Your task to perform on an android device: star an email in the gmail app Image 0: 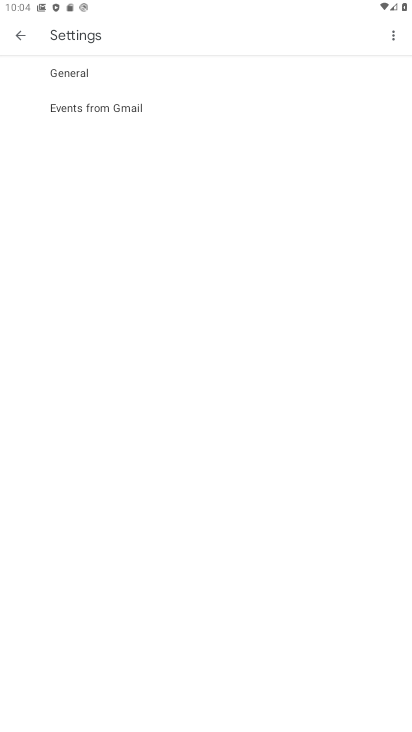
Step 0: press home button
Your task to perform on an android device: star an email in the gmail app Image 1: 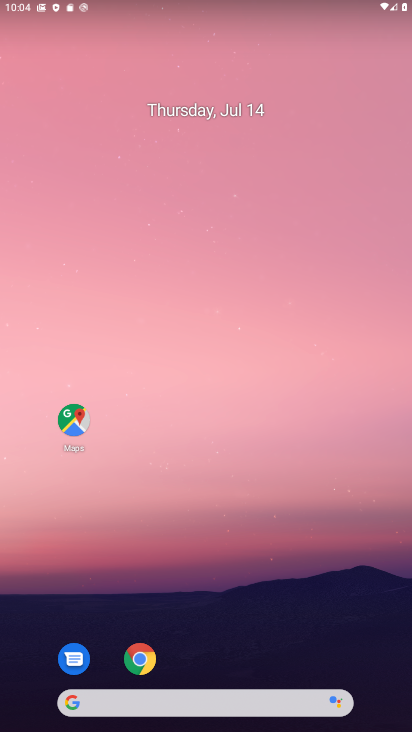
Step 1: drag from (188, 701) to (292, 139)
Your task to perform on an android device: star an email in the gmail app Image 2: 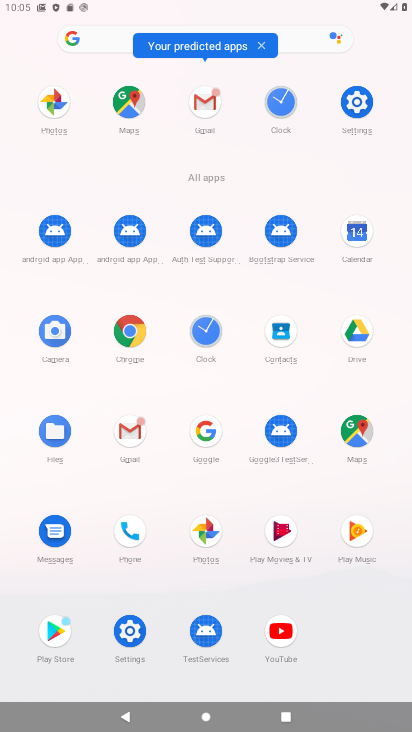
Step 2: click (125, 449)
Your task to perform on an android device: star an email in the gmail app Image 3: 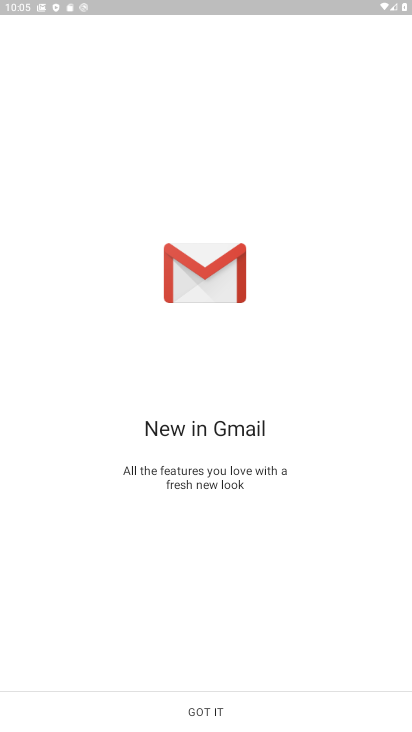
Step 3: click (228, 721)
Your task to perform on an android device: star an email in the gmail app Image 4: 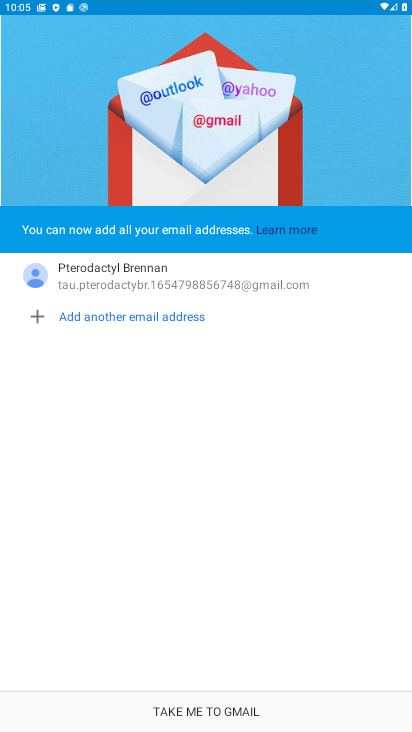
Step 4: click (228, 716)
Your task to perform on an android device: star an email in the gmail app Image 5: 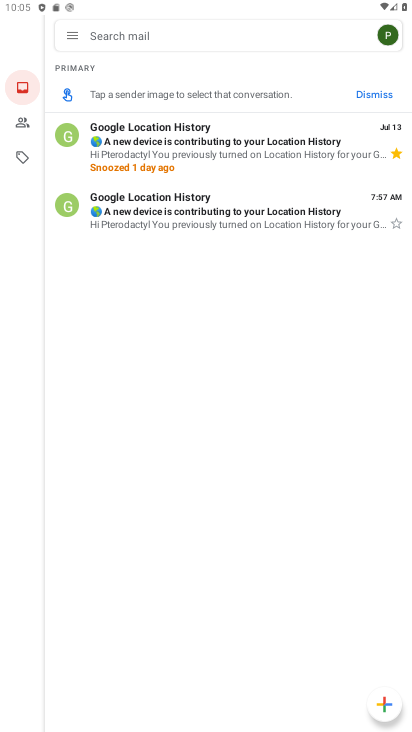
Step 5: click (390, 227)
Your task to perform on an android device: star an email in the gmail app Image 6: 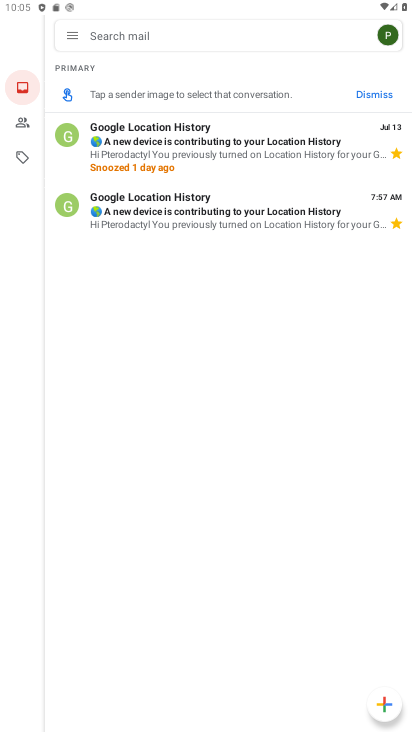
Step 6: task complete